Your task to perform on an android device: Empty the shopping cart on newegg. Search for razer kraken on newegg, select the first entry, and add it to the cart. Image 0: 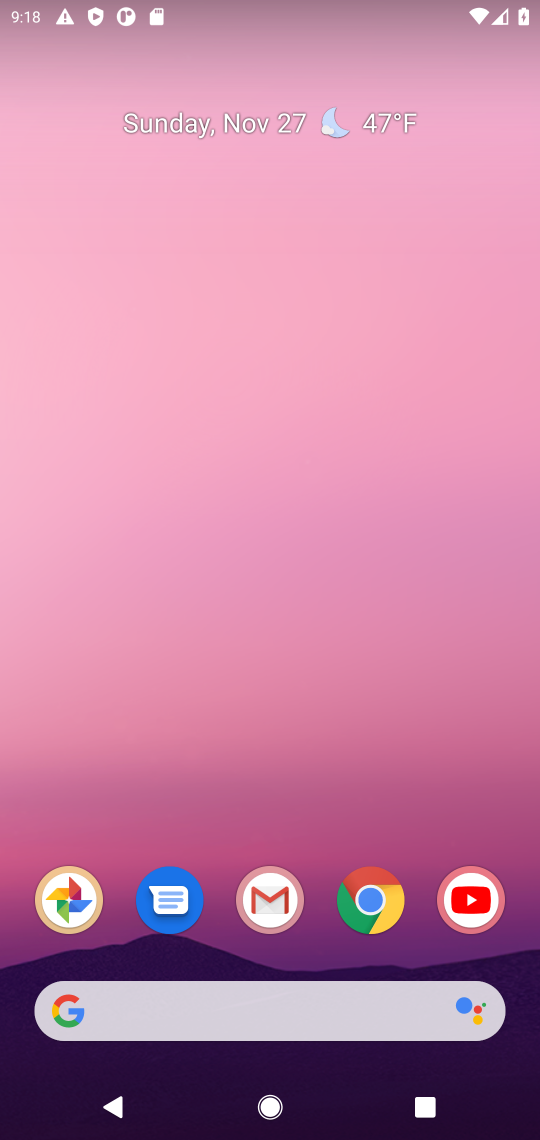
Step 0: click (380, 908)
Your task to perform on an android device: Empty the shopping cart on newegg. Search for razer kraken on newegg, select the first entry, and add it to the cart. Image 1: 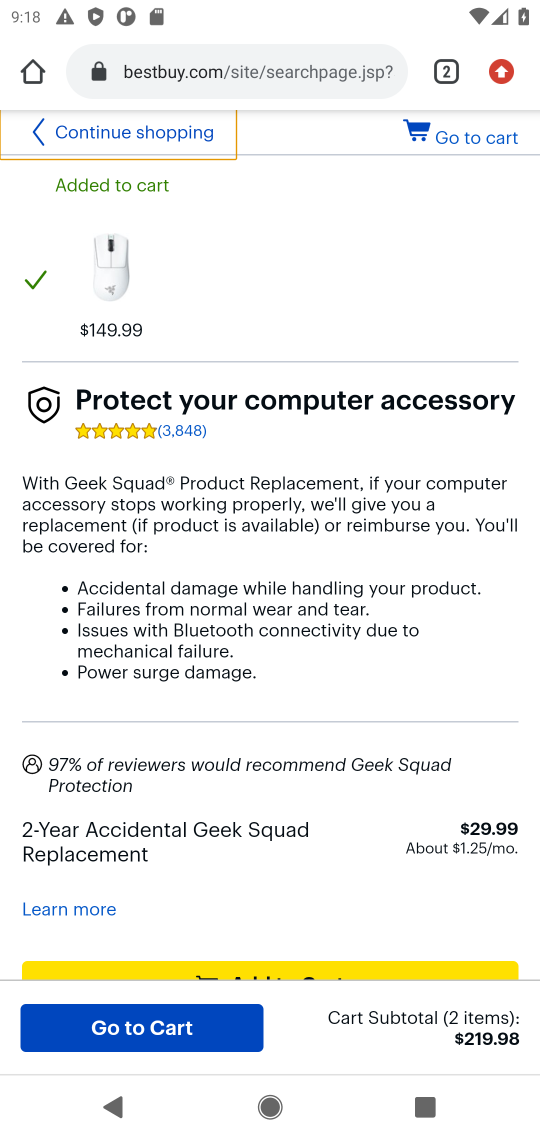
Step 1: click (239, 72)
Your task to perform on an android device: Empty the shopping cart on newegg. Search for razer kraken on newegg, select the first entry, and add it to the cart. Image 2: 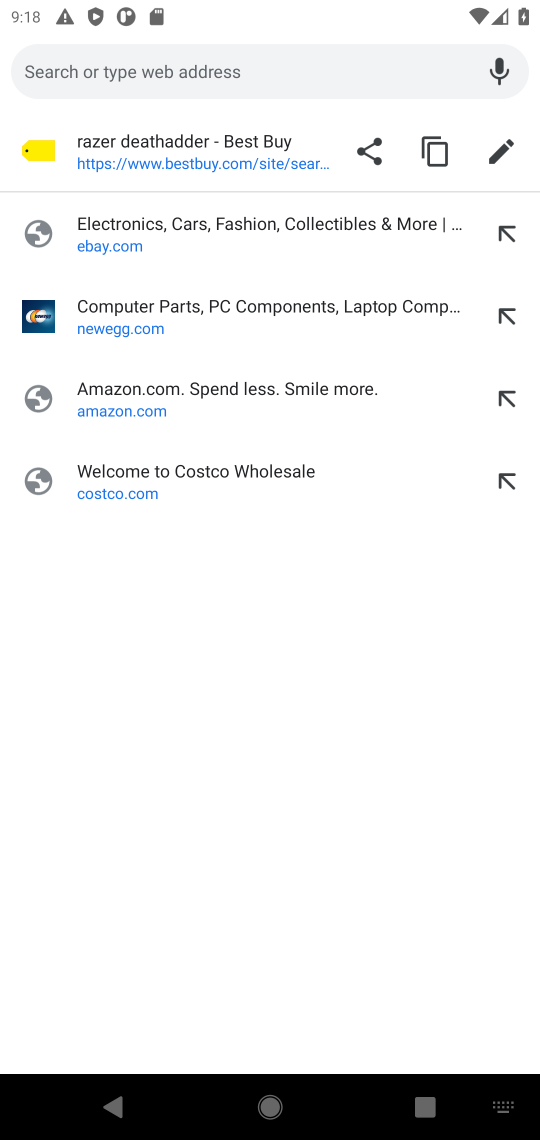
Step 2: click (98, 312)
Your task to perform on an android device: Empty the shopping cart on newegg. Search for razer kraken on newegg, select the first entry, and add it to the cart. Image 3: 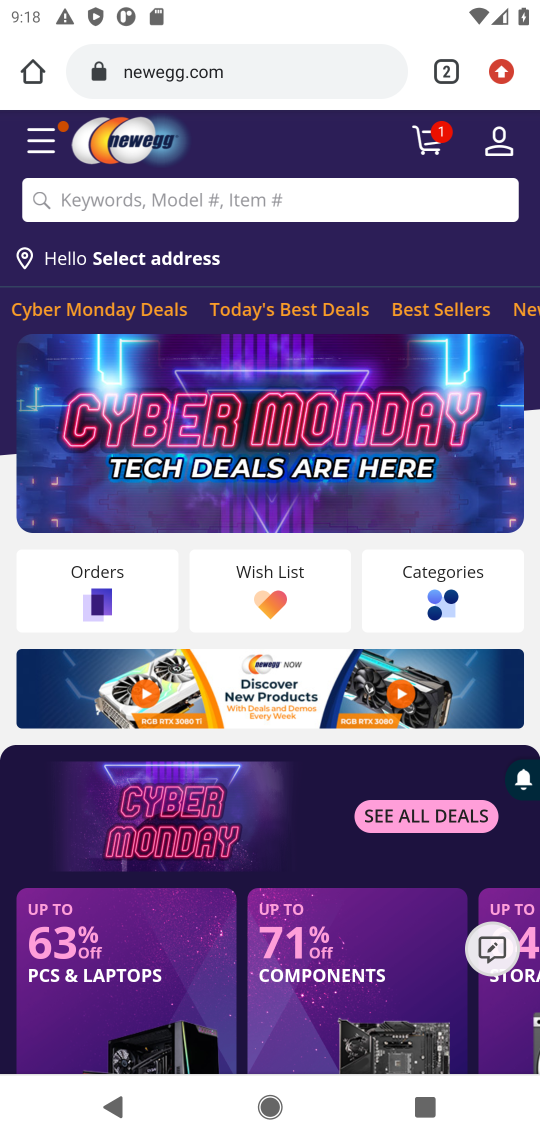
Step 3: click (423, 150)
Your task to perform on an android device: Empty the shopping cart on newegg. Search for razer kraken on newegg, select the first entry, and add it to the cart. Image 4: 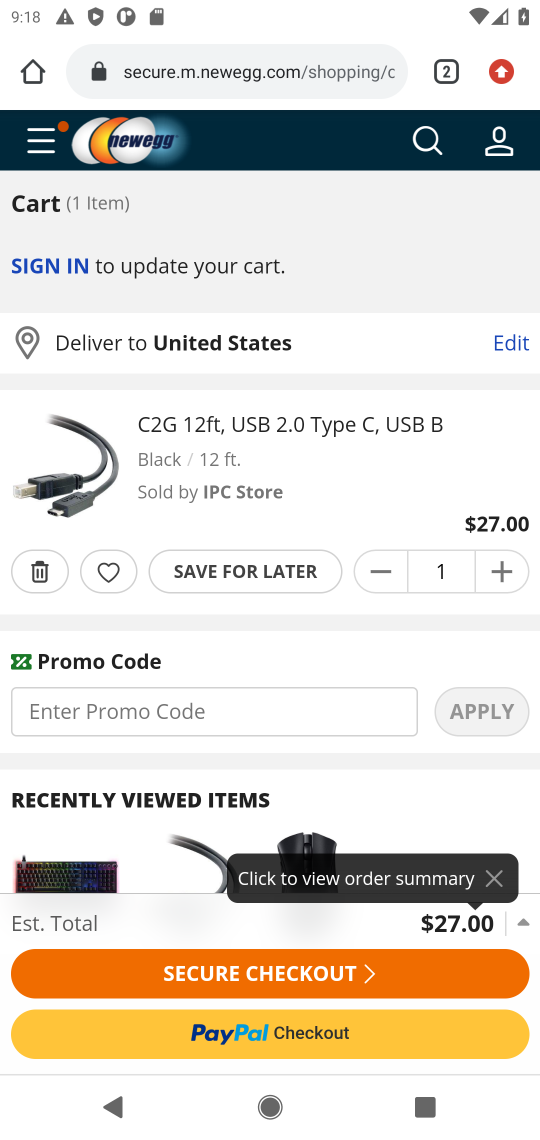
Step 4: click (49, 580)
Your task to perform on an android device: Empty the shopping cart on newegg. Search for razer kraken on newegg, select the first entry, and add it to the cart. Image 5: 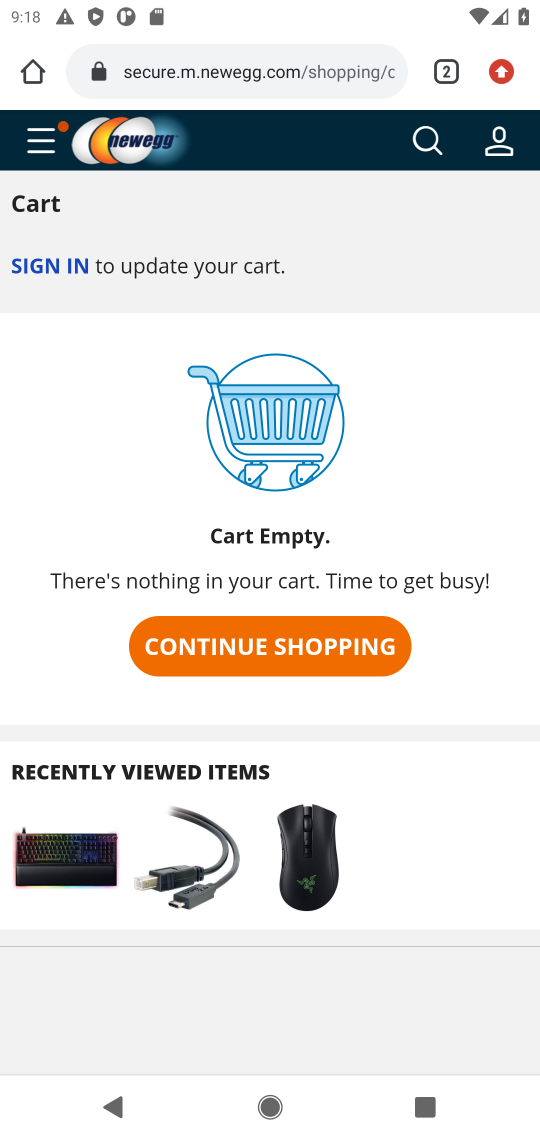
Step 5: click (234, 651)
Your task to perform on an android device: Empty the shopping cart on newegg. Search for razer kraken on newegg, select the first entry, and add it to the cart. Image 6: 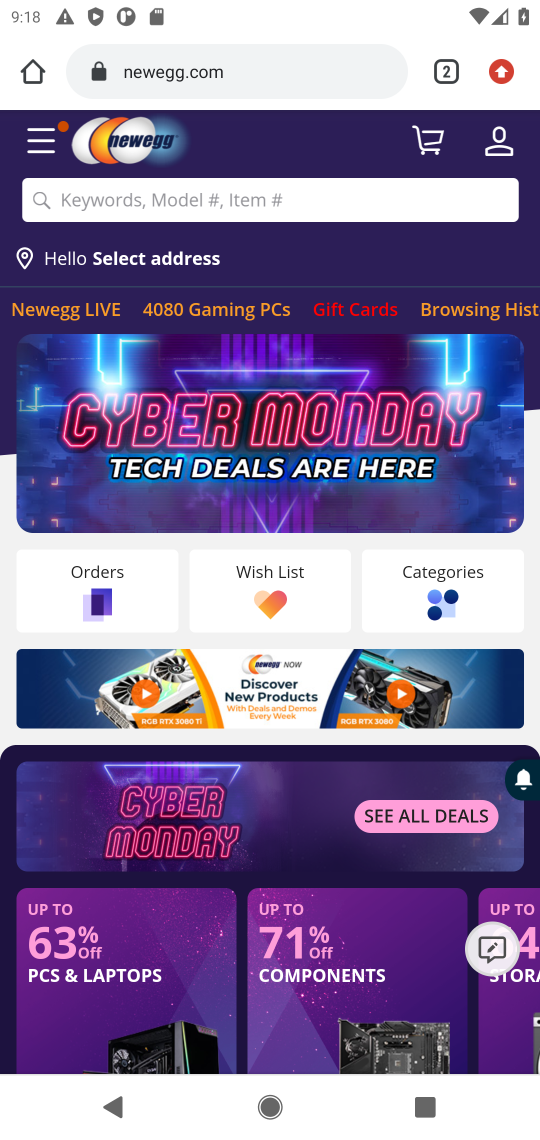
Step 6: click (146, 212)
Your task to perform on an android device: Empty the shopping cart on newegg. Search for razer kraken on newegg, select the first entry, and add it to the cart. Image 7: 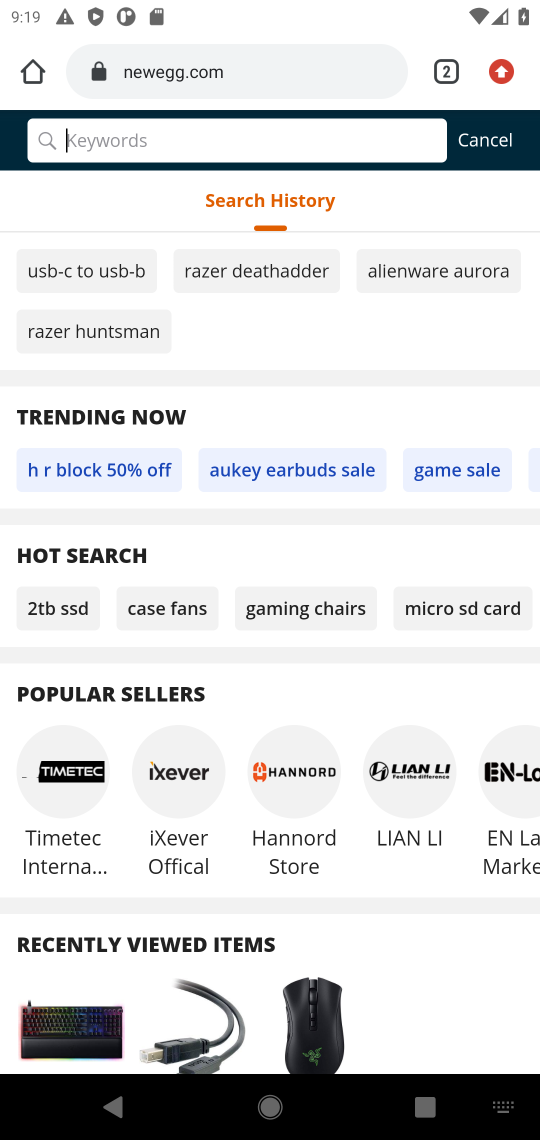
Step 7: type "razer kraken"
Your task to perform on an android device: Empty the shopping cart on newegg. Search for razer kraken on newegg, select the first entry, and add it to the cart. Image 8: 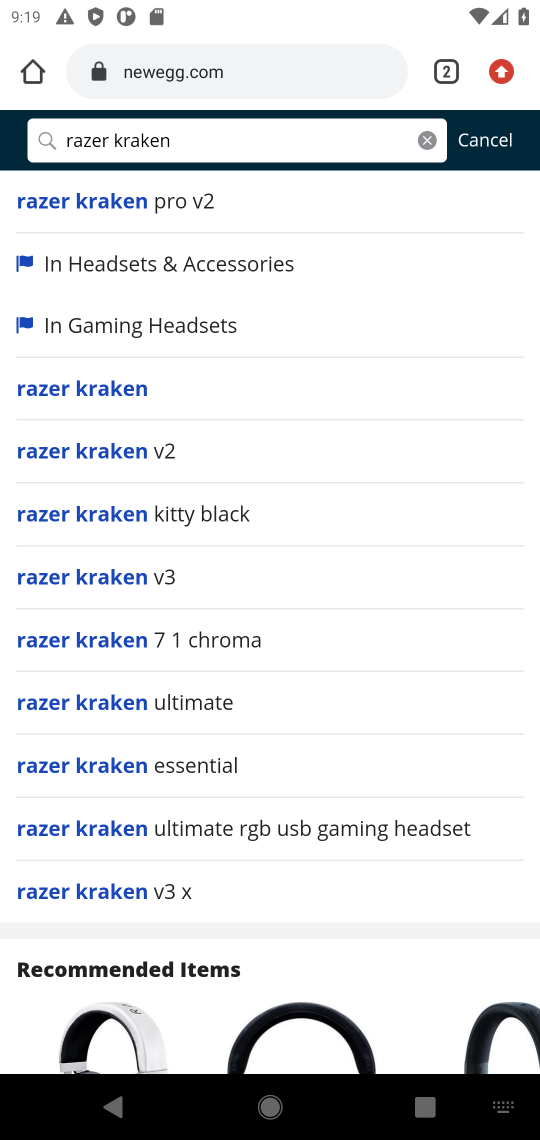
Step 8: click (136, 396)
Your task to perform on an android device: Empty the shopping cart on newegg. Search for razer kraken on newegg, select the first entry, and add it to the cart. Image 9: 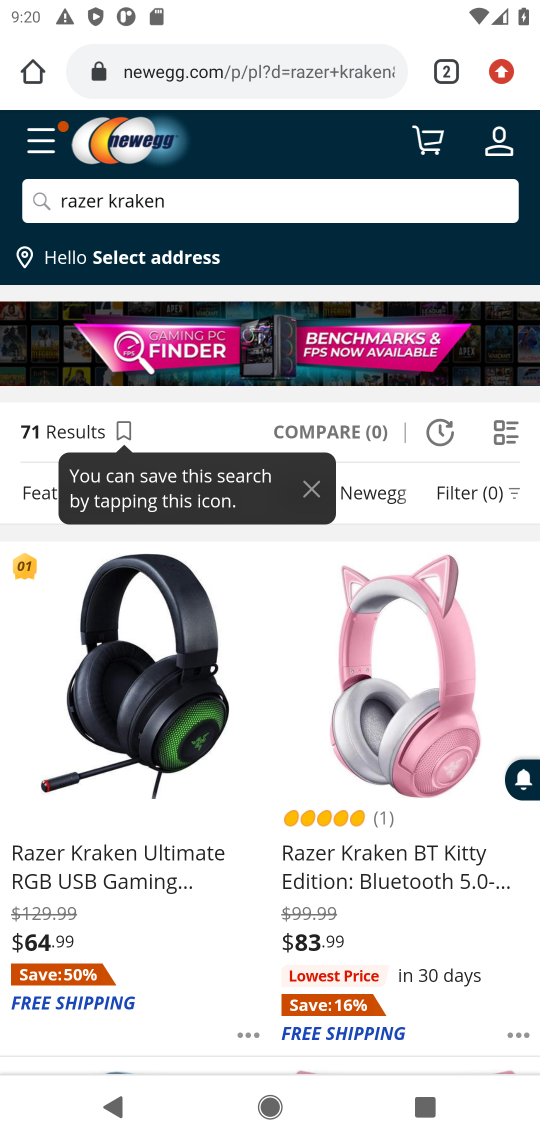
Step 9: click (133, 736)
Your task to perform on an android device: Empty the shopping cart on newegg. Search for razer kraken on newegg, select the first entry, and add it to the cart. Image 10: 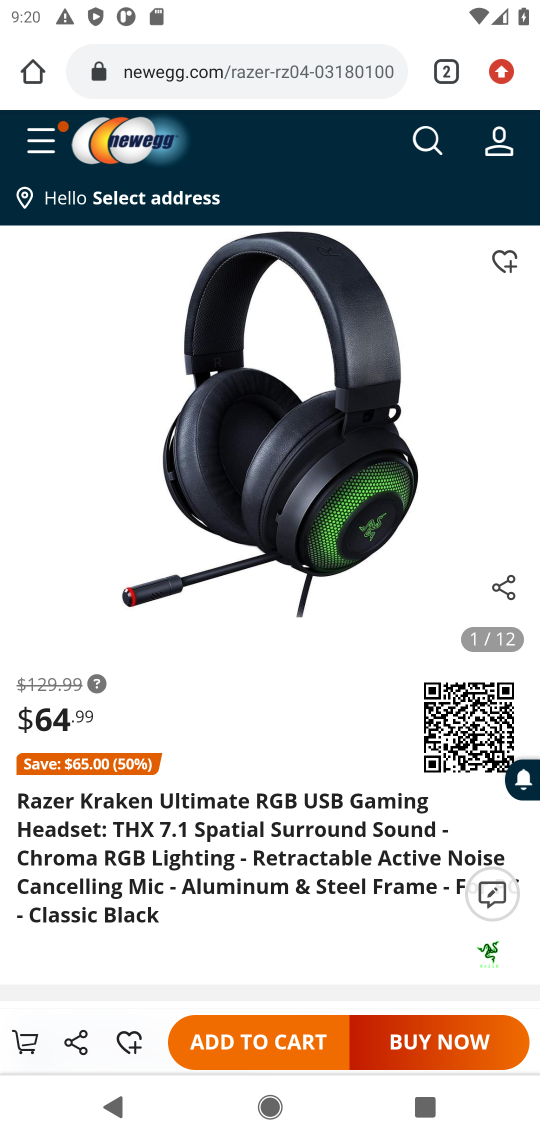
Step 10: click (225, 1044)
Your task to perform on an android device: Empty the shopping cart on newegg. Search for razer kraken on newegg, select the first entry, and add it to the cart. Image 11: 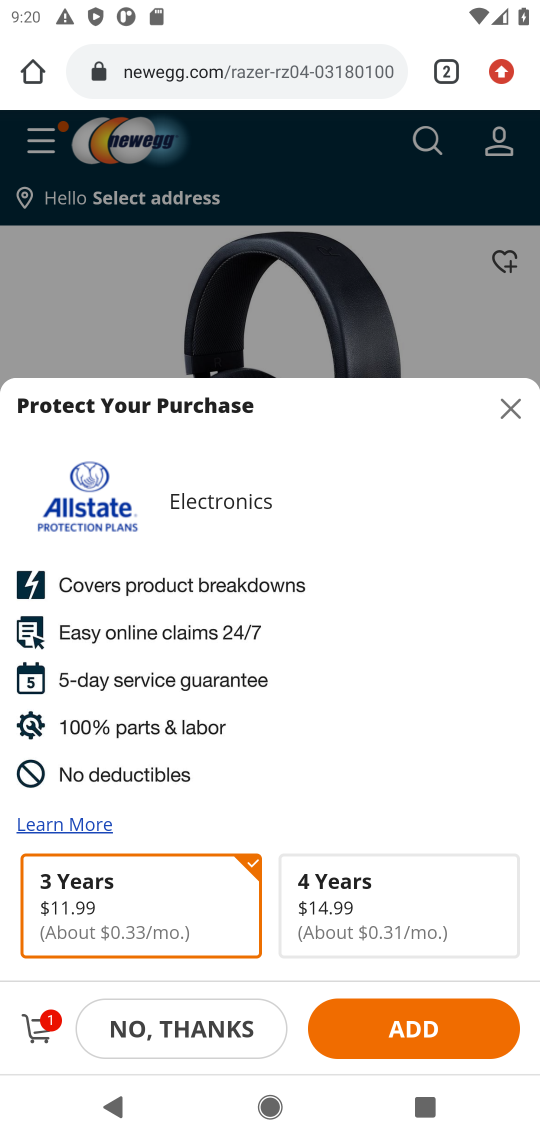
Step 11: task complete